Your task to perform on an android device: move an email to a new category in the gmail app Image 0: 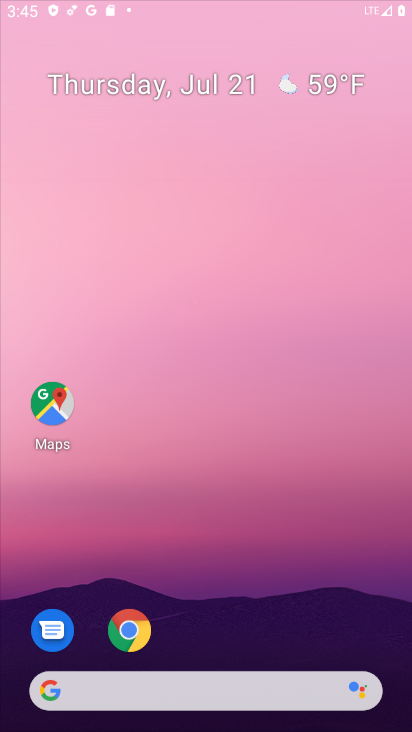
Step 0: click (179, 250)
Your task to perform on an android device: move an email to a new category in the gmail app Image 1: 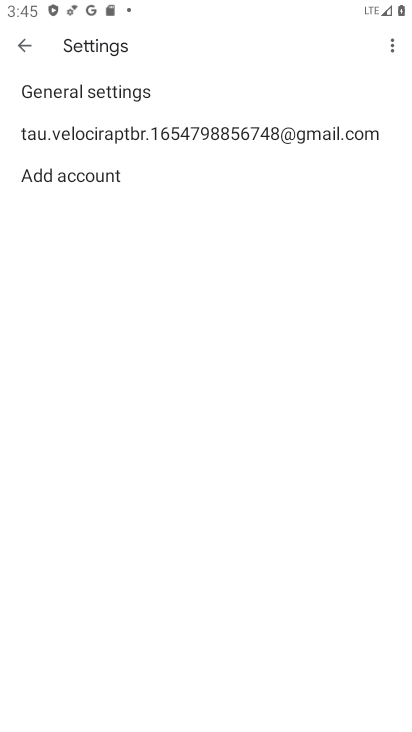
Step 1: click (25, 52)
Your task to perform on an android device: move an email to a new category in the gmail app Image 2: 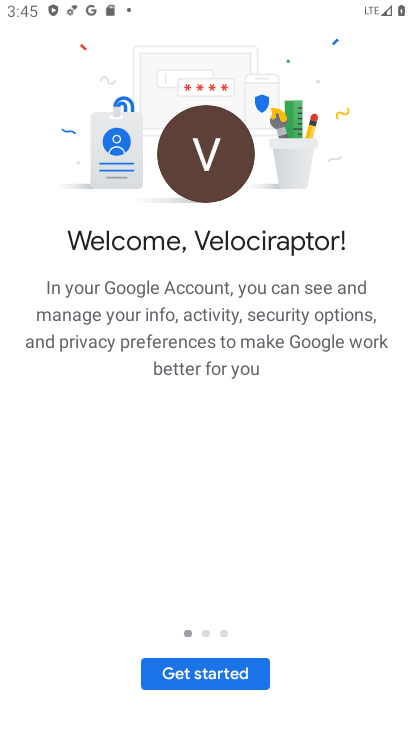
Step 2: press back button
Your task to perform on an android device: move an email to a new category in the gmail app Image 3: 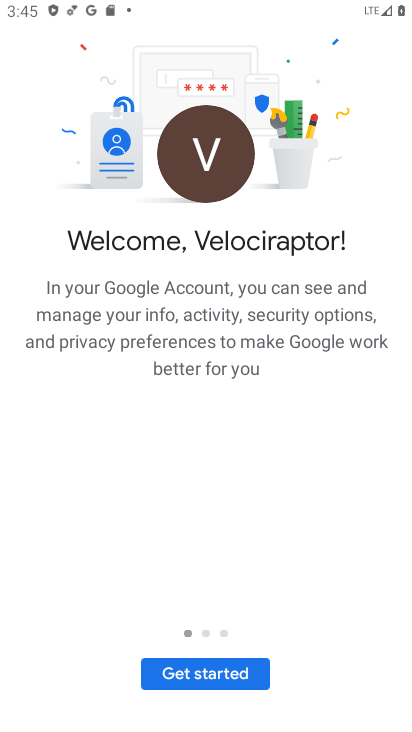
Step 3: press back button
Your task to perform on an android device: move an email to a new category in the gmail app Image 4: 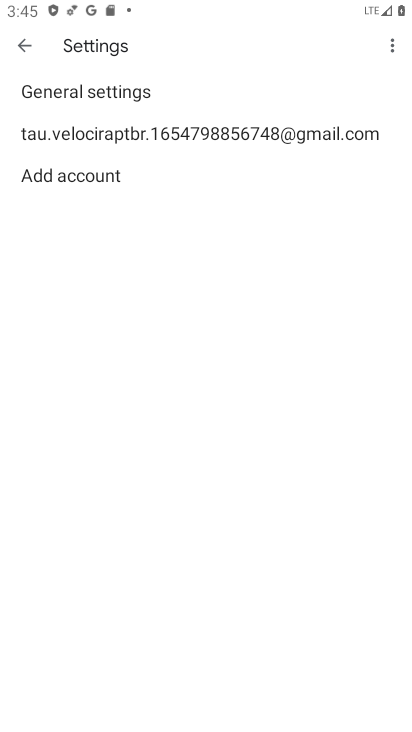
Step 4: click (16, 51)
Your task to perform on an android device: move an email to a new category in the gmail app Image 5: 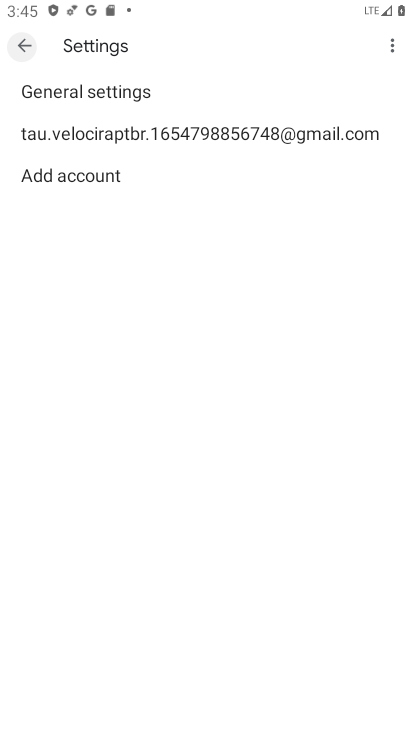
Step 5: click (16, 51)
Your task to perform on an android device: move an email to a new category in the gmail app Image 6: 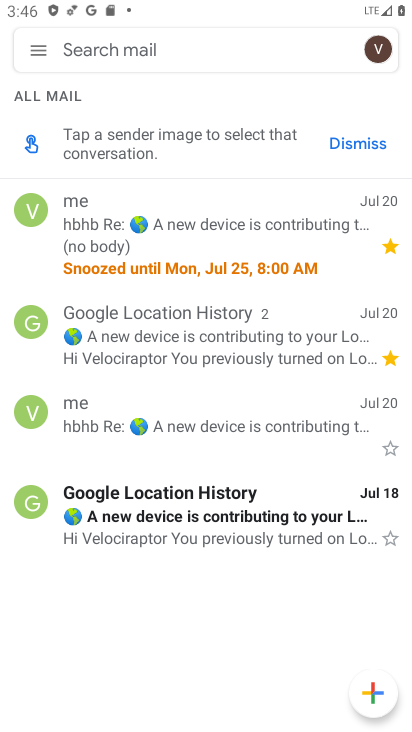
Step 6: click (191, 349)
Your task to perform on an android device: move an email to a new category in the gmail app Image 7: 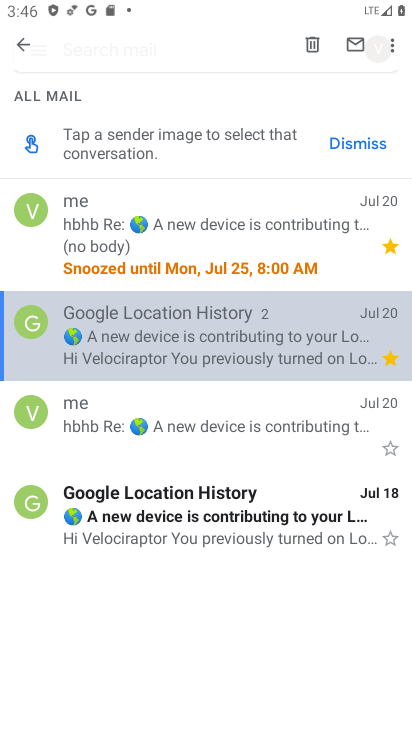
Step 7: click (191, 332)
Your task to perform on an android device: move an email to a new category in the gmail app Image 8: 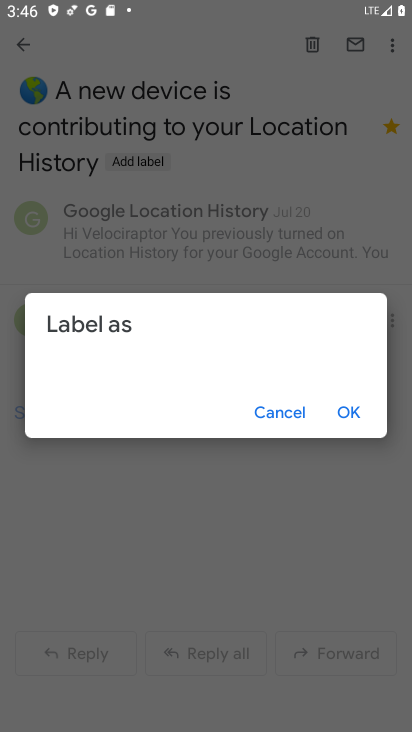
Step 8: click (299, 398)
Your task to perform on an android device: move an email to a new category in the gmail app Image 9: 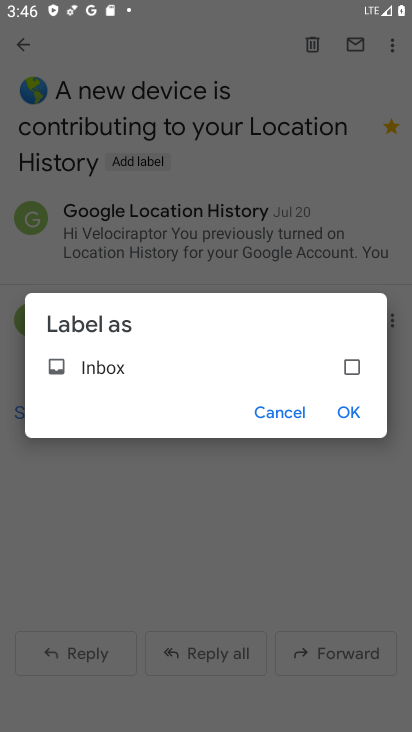
Step 9: click (299, 397)
Your task to perform on an android device: move an email to a new category in the gmail app Image 10: 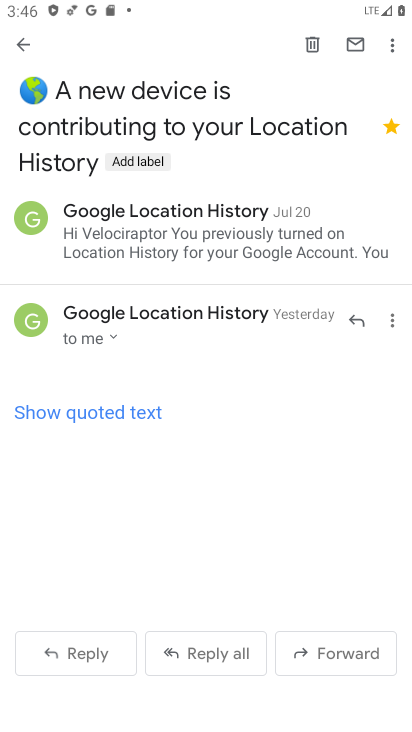
Step 10: click (398, 50)
Your task to perform on an android device: move an email to a new category in the gmail app Image 11: 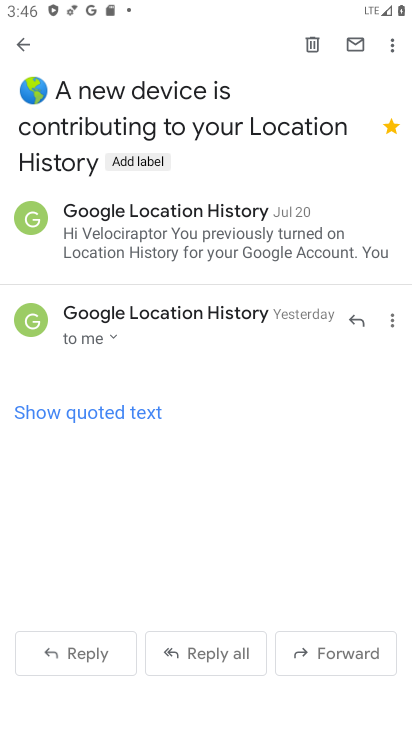
Step 11: click (394, 39)
Your task to perform on an android device: move an email to a new category in the gmail app Image 12: 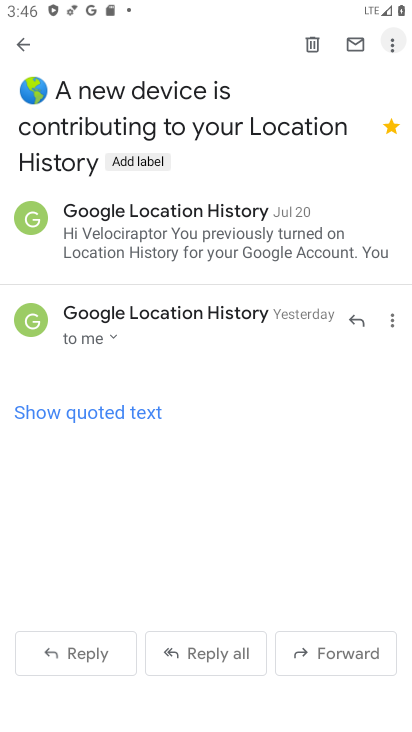
Step 12: click (395, 51)
Your task to perform on an android device: move an email to a new category in the gmail app Image 13: 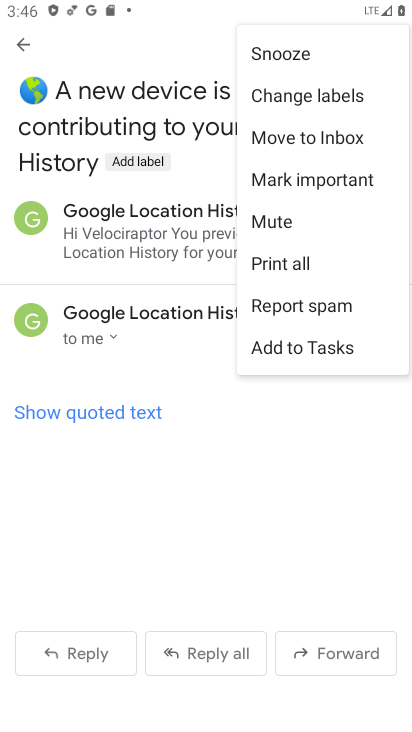
Step 13: click (283, 137)
Your task to perform on an android device: move an email to a new category in the gmail app Image 14: 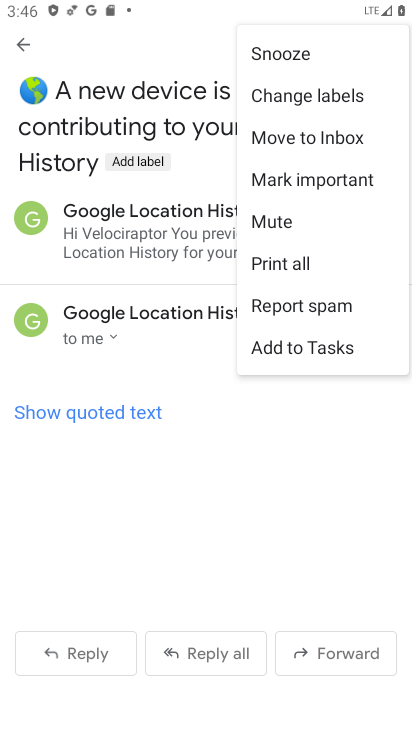
Step 14: click (283, 136)
Your task to perform on an android device: move an email to a new category in the gmail app Image 15: 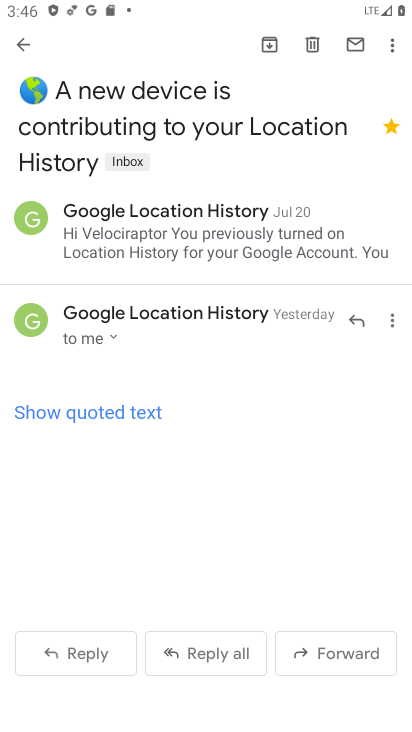
Step 15: task complete